Your task to perform on an android device: Open Reddit.com Image 0: 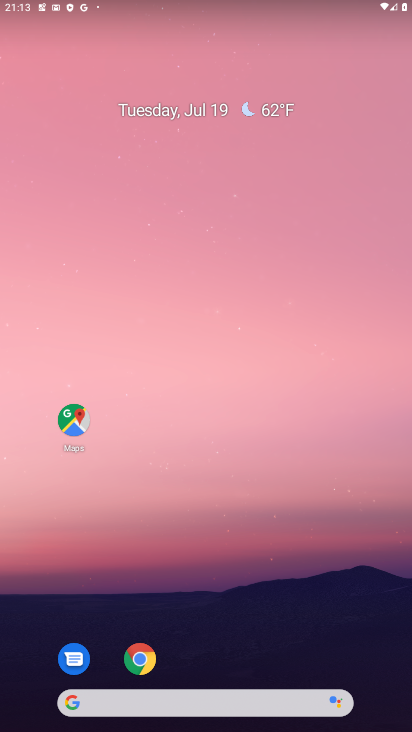
Step 0: press home button
Your task to perform on an android device: Open Reddit.com Image 1: 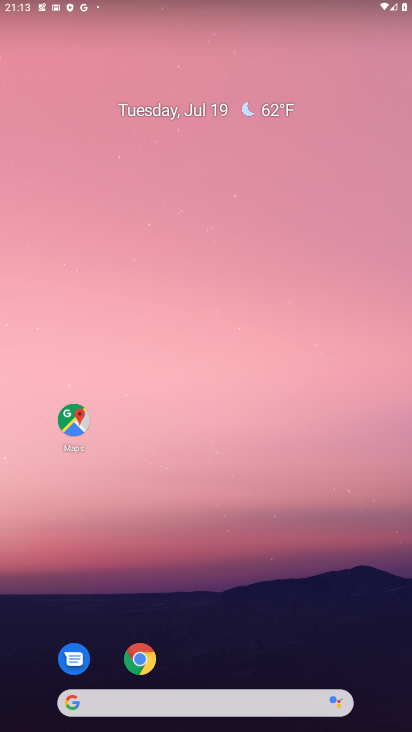
Step 1: drag from (218, 692) to (267, 121)
Your task to perform on an android device: Open Reddit.com Image 2: 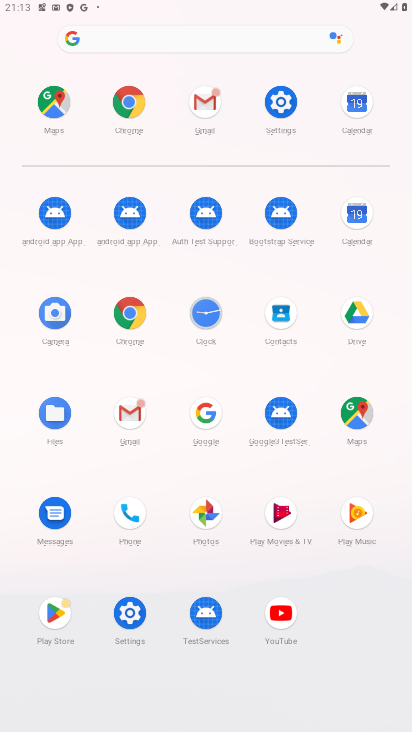
Step 2: click (114, 107)
Your task to perform on an android device: Open Reddit.com Image 3: 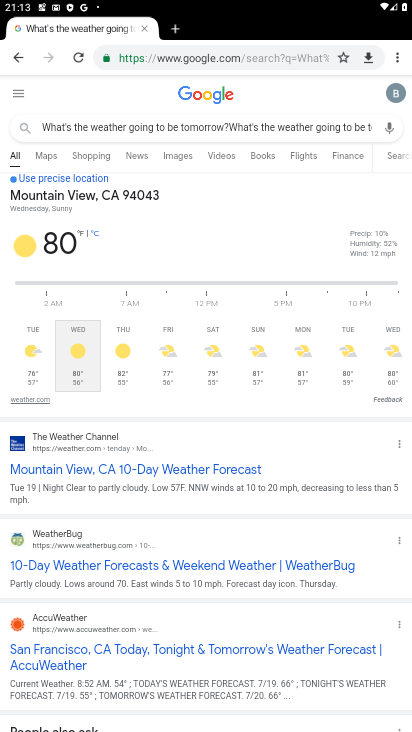
Step 3: click (268, 54)
Your task to perform on an android device: Open Reddit.com Image 4: 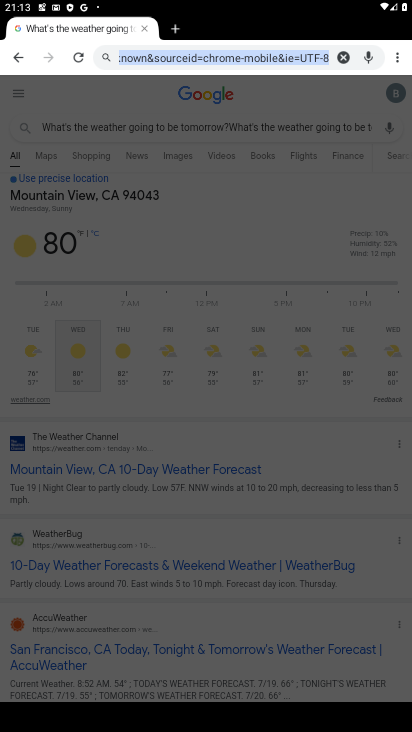
Step 4: type "Reddit.com"
Your task to perform on an android device: Open Reddit.com Image 5: 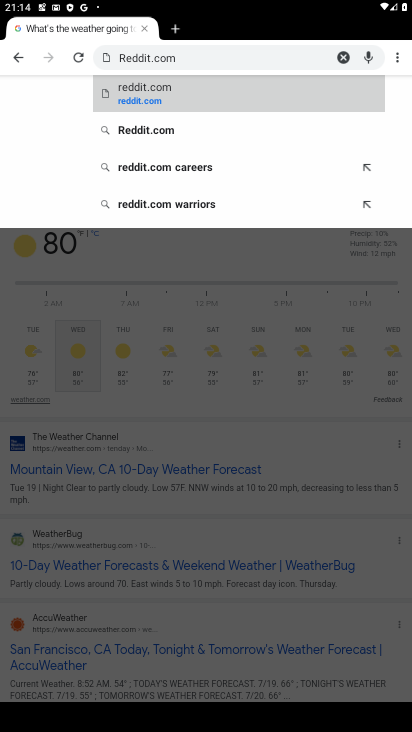
Step 5: click (312, 93)
Your task to perform on an android device: Open Reddit.com Image 6: 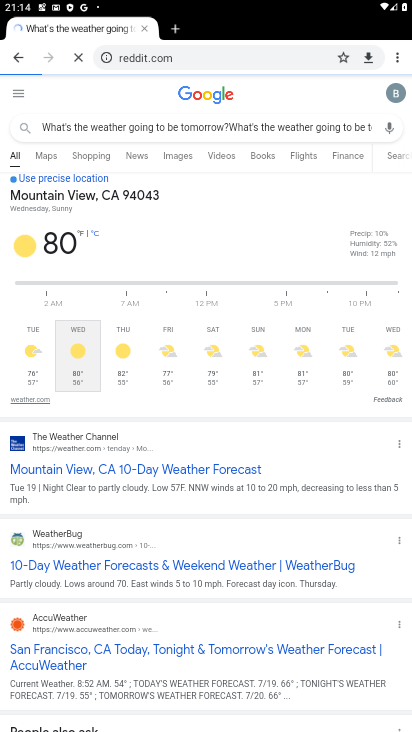
Step 6: click (312, 93)
Your task to perform on an android device: Open Reddit.com Image 7: 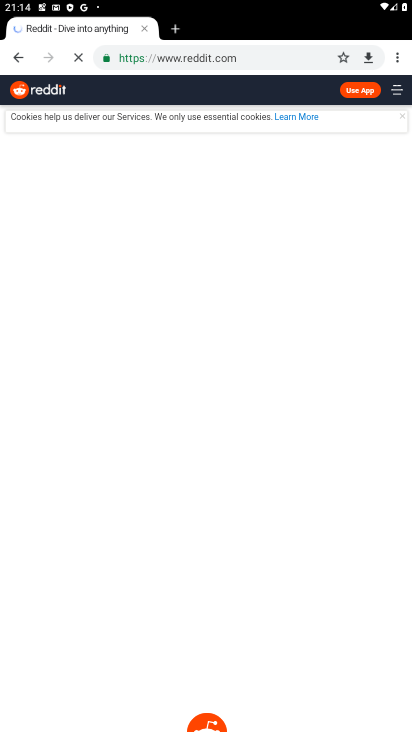
Step 7: task complete